Your task to perform on an android device: visit the assistant section in the google photos Image 0: 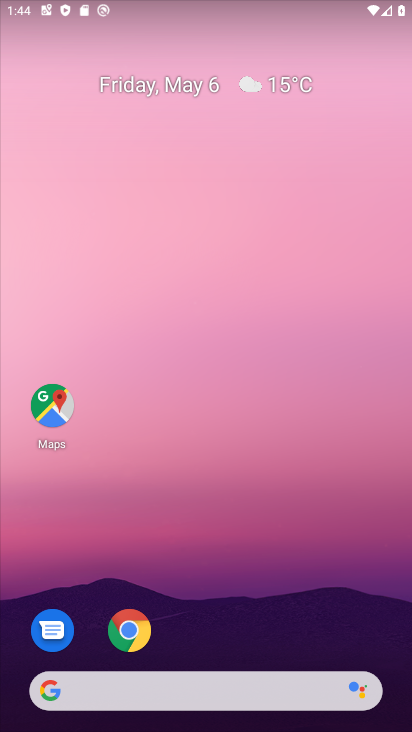
Step 0: drag from (207, 639) to (231, 157)
Your task to perform on an android device: visit the assistant section in the google photos Image 1: 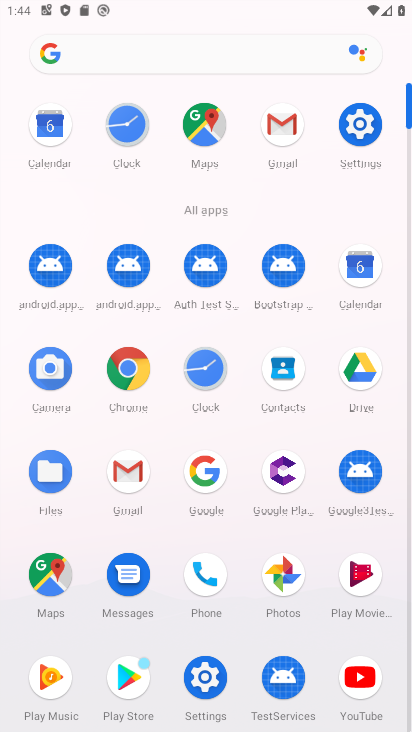
Step 1: click (282, 585)
Your task to perform on an android device: visit the assistant section in the google photos Image 2: 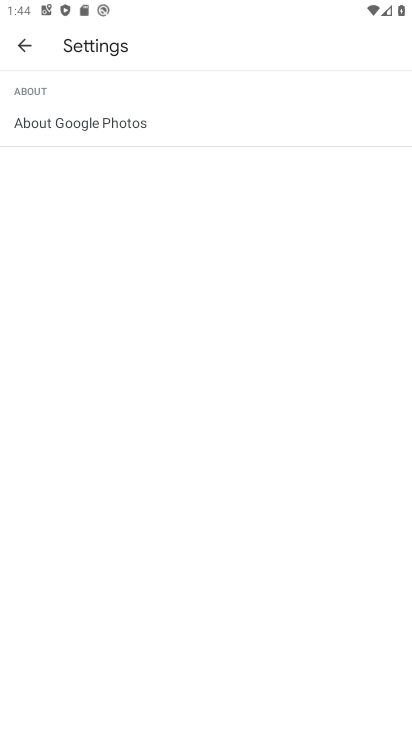
Step 2: click (23, 47)
Your task to perform on an android device: visit the assistant section in the google photos Image 3: 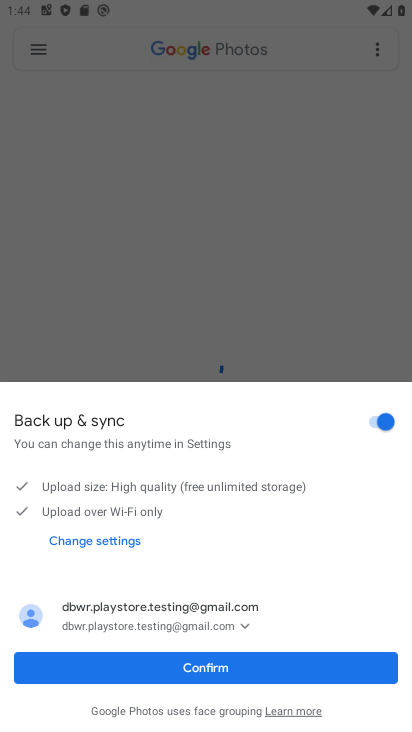
Step 3: click (174, 680)
Your task to perform on an android device: visit the assistant section in the google photos Image 4: 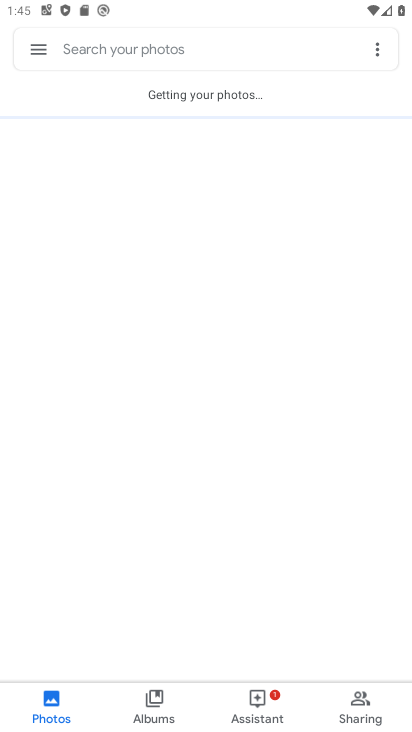
Step 4: click (262, 708)
Your task to perform on an android device: visit the assistant section in the google photos Image 5: 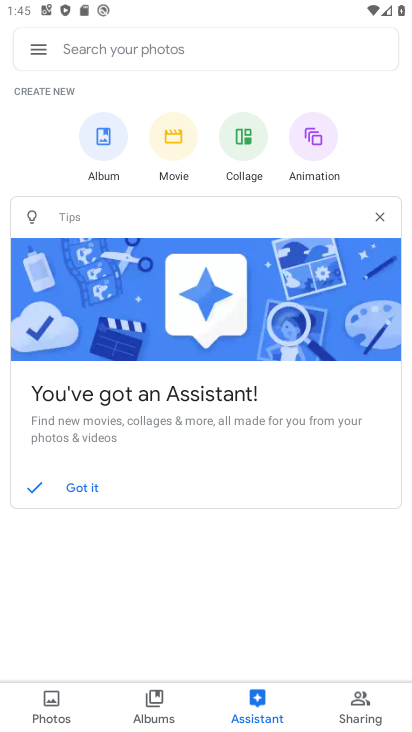
Step 5: task complete